Your task to perform on an android device: turn smart compose on in the gmail app Image 0: 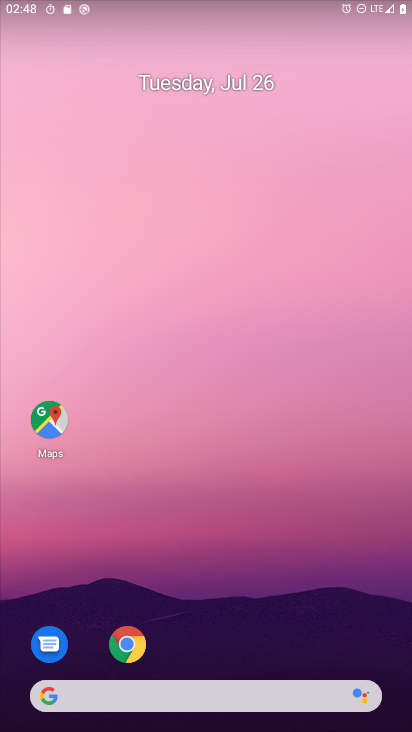
Step 0: drag from (247, 653) to (217, 80)
Your task to perform on an android device: turn smart compose on in the gmail app Image 1: 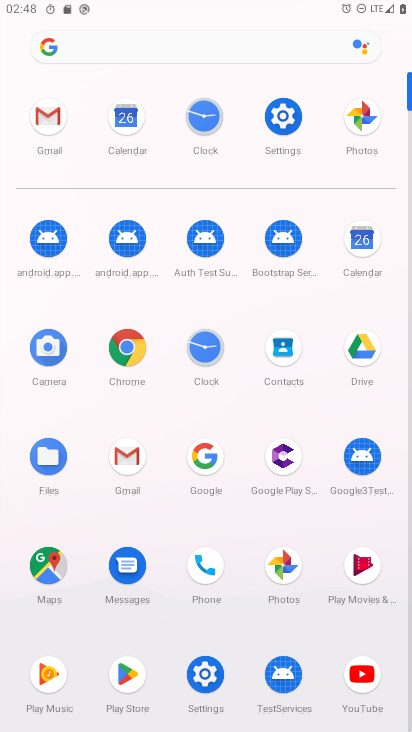
Step 1: click (47, 122)
Your task to perform on an android device: turn smart compose on in the gmail app Image 2: 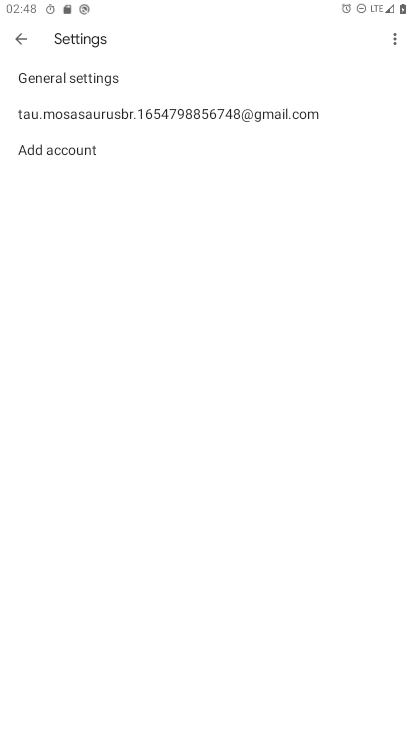
Step 2: click (87, 110)
Your task to perform on an android device: turn smart compose on in the gmail app Image 3: 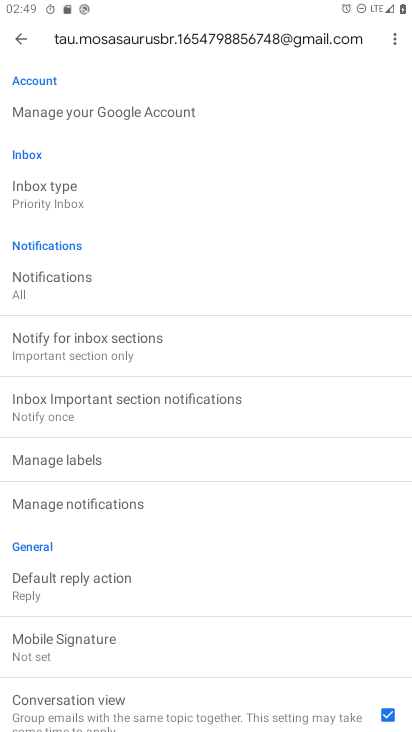
Step 3: task complete